Your task to perform on an android device: search for starred emails in the gmail app Image 0: 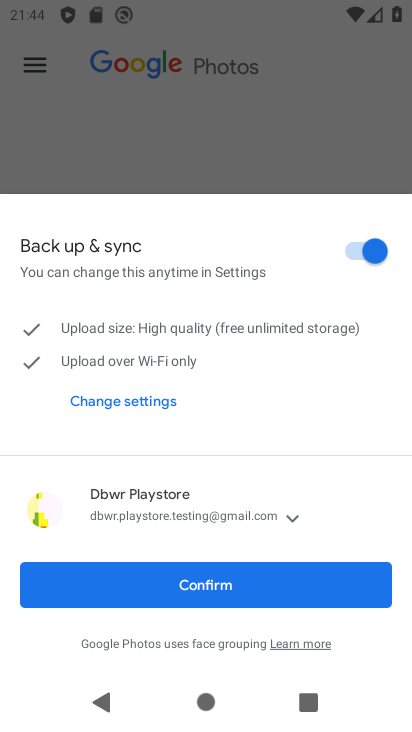
Step 0: press home button
Your task to perform on an android device: search for starred emails in the gmail app Image 1: 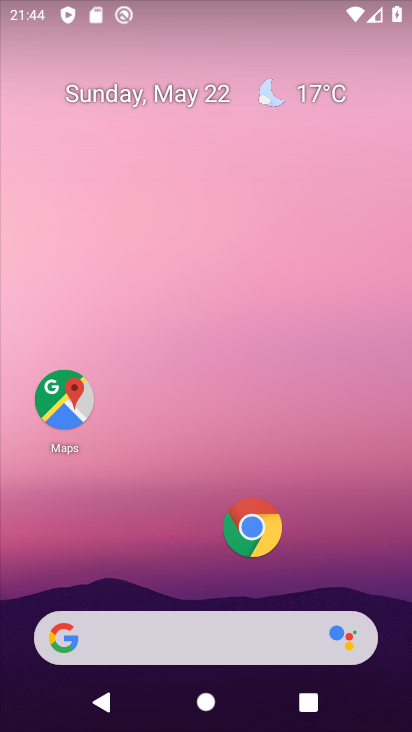
Step 1: drag from (174, 540) to (115, 37)
Your task to perform on an android device: search for starred emails in the gmail app Image 2: 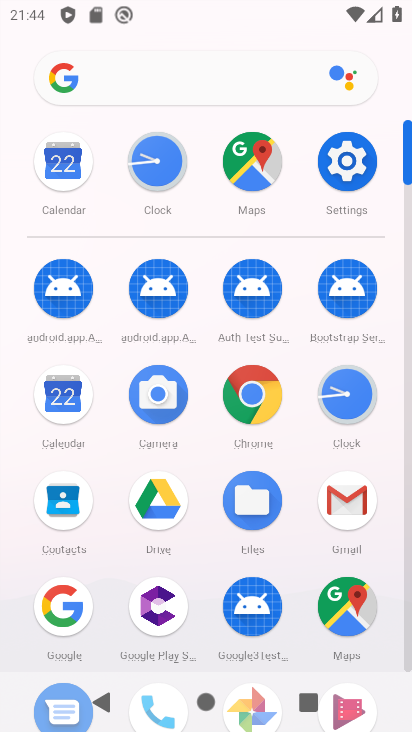
Step 2: click (342, 502)
Your task to perform on an android device: search for starred emails in the gmail app Image 3: 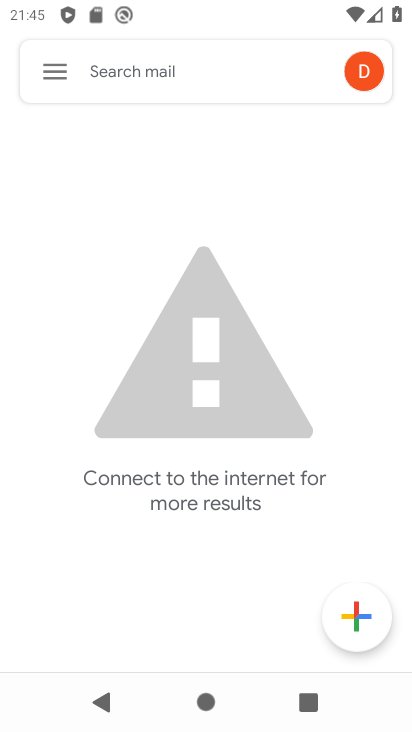
Step 3: click (56, 66)
Your task to perform on an android device: search for starred emails in the gmail app Image 4: 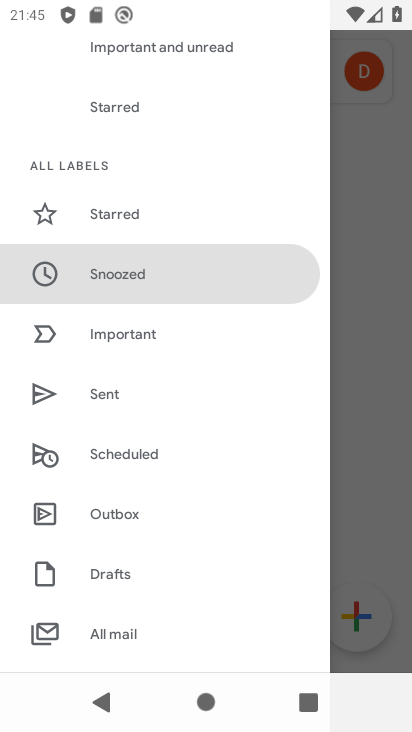
Step 4: click (102, 210)
Your task to perform on an android device: search for starred emails in the gmail app Image 5: 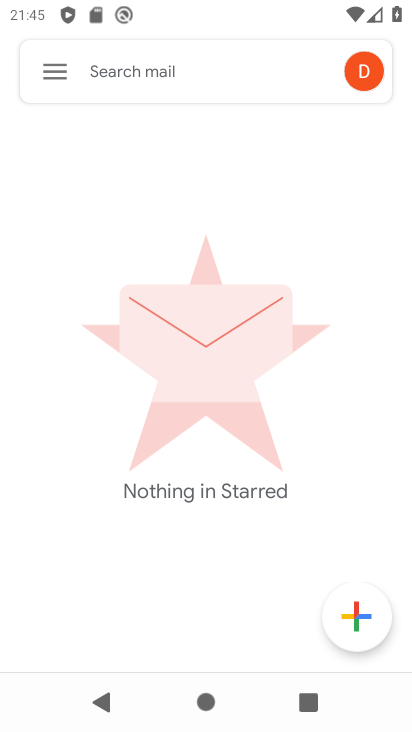
Step 5: task complete